Your task to perform on an android device: Open Youtube and go to "Your channel" Image 0: 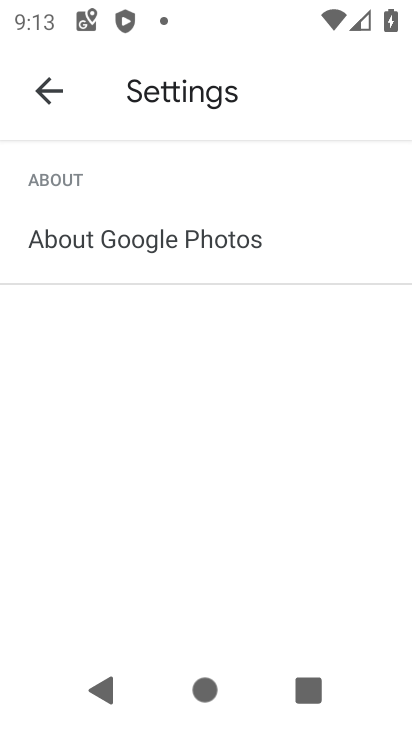
Step 0: press home button
Your task to perform on an android device: Open Youtube and go to "Your channel" Image 1: 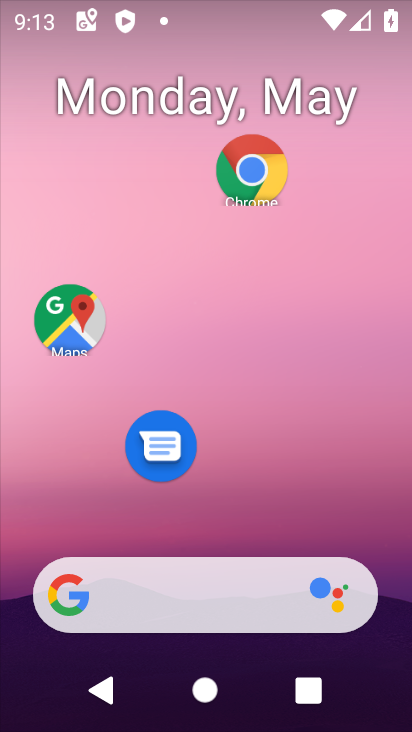
Step 1: drag from (221, 530) to (210, 51)
Your task to perform on an android device: Open Youtube and go to "Your channel" Image 2: 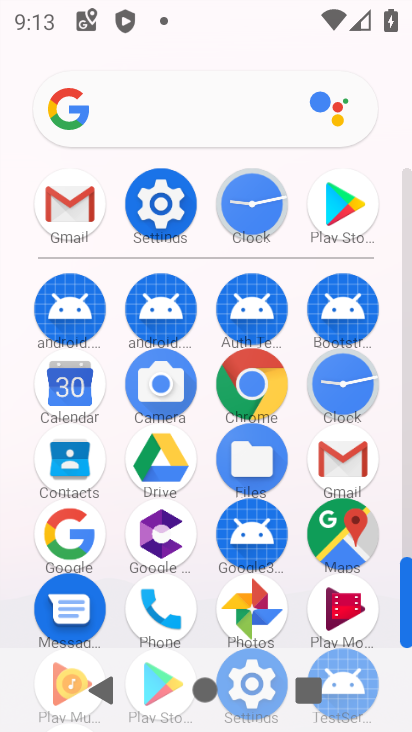
Step 2: drag from (197, 577) to (206, 96)
Your task to perform on an android device: Open Youtube and go to "Your channel" Image 3: 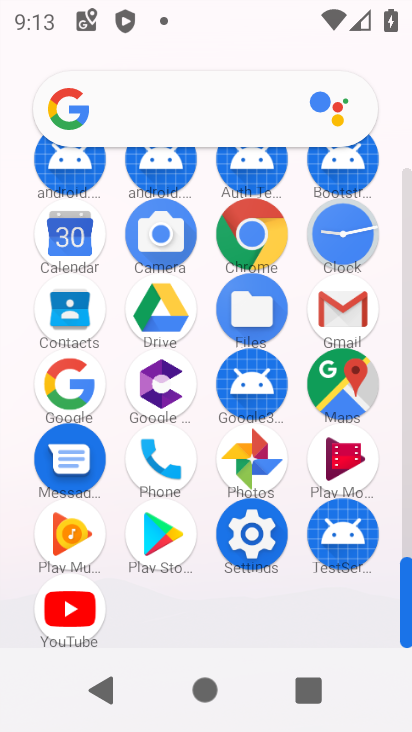
Step 3: click (67, 603)
Your task to perform on an android device: Open Youtube and go to "Your channel" Image 4: 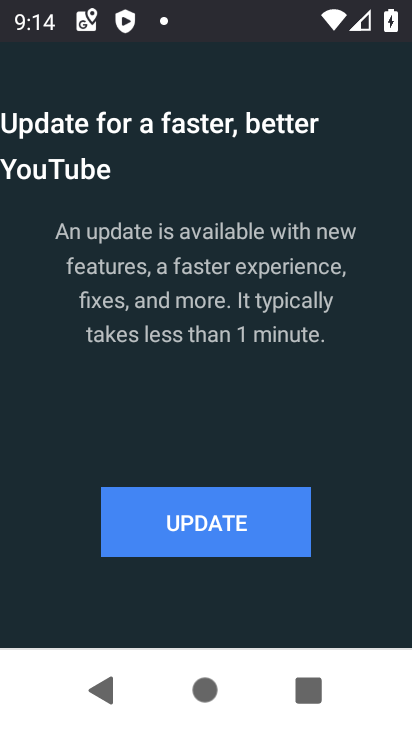
Step 4: click (209, 522)
Your task to perform on an android device: Open Youtube and go to "Your channel" Image 5: 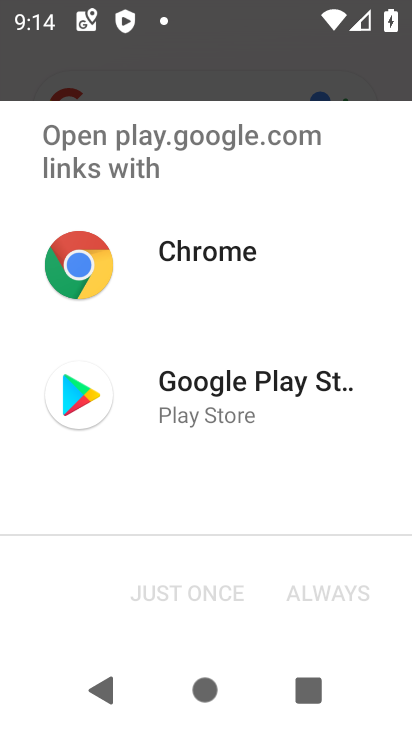
Step 5: click (131, 395)
Your task to perform on an android device: Open Youtube and go to "Your channel" Image 6: 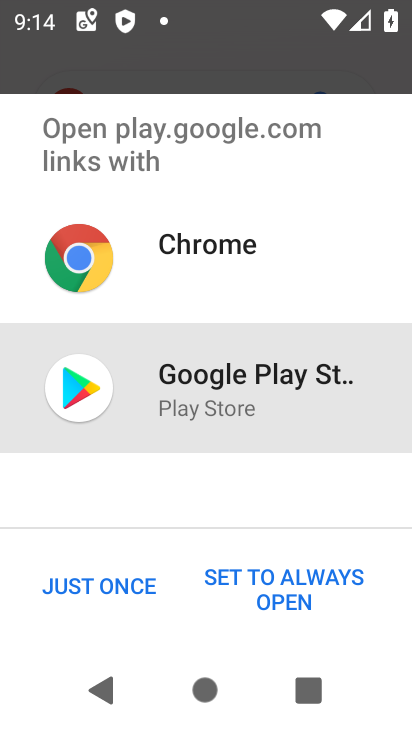
Step 6: click (116, 586)
Your task to perform on an android device: Open Youtube and go to "Your channel" Image 7: 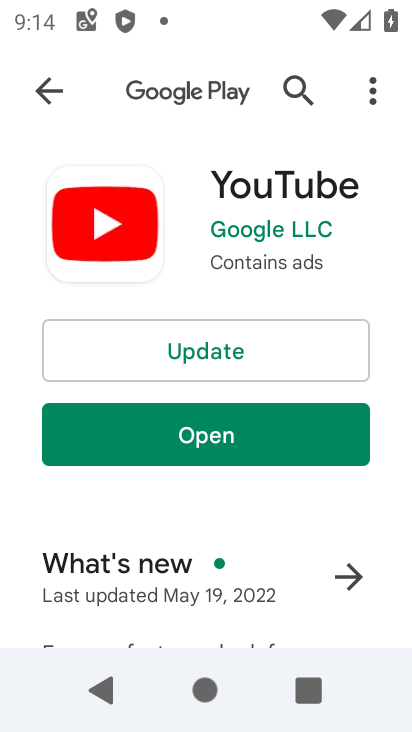
Step 7: click (173, 355)
Your task to perform on an android device: Open Youtube and go to "Your channel" Image 8: 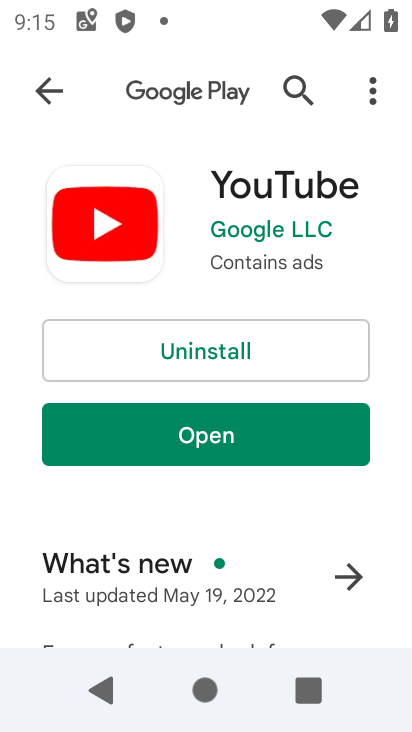
Step 8: click (211, 437)
Your task to perform on an android device: Open Youtube and go to "Your channel" Image 9: 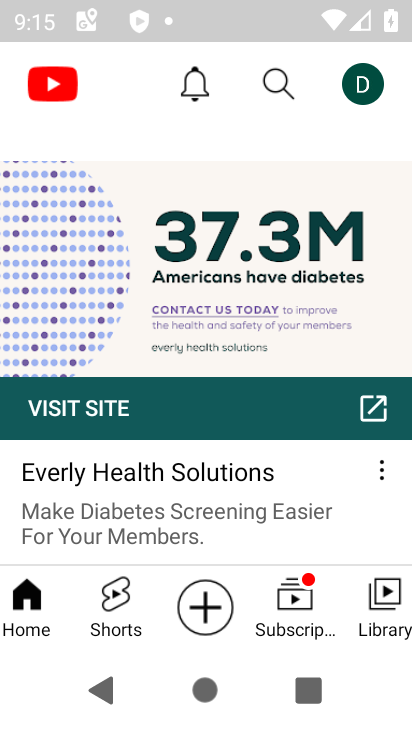
Step 9: click (359, 76)
Your task to perform on an android device: Open Youtube and go to "Your channel" Image 10: 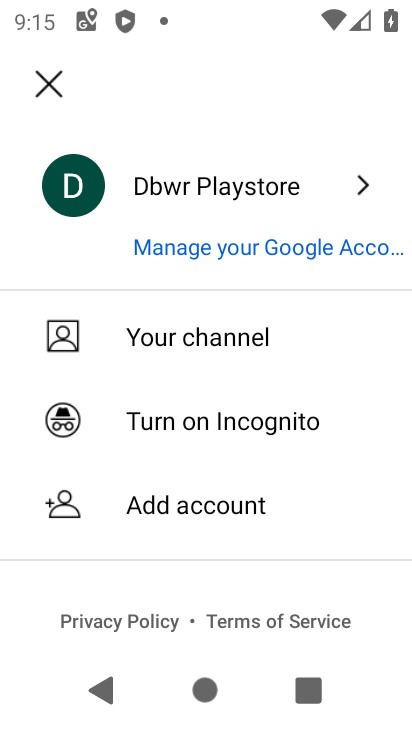
Step 10: click (247, 341)
Your task to perform on an android device: Open Youtube and go to "Your channel" Image 11: 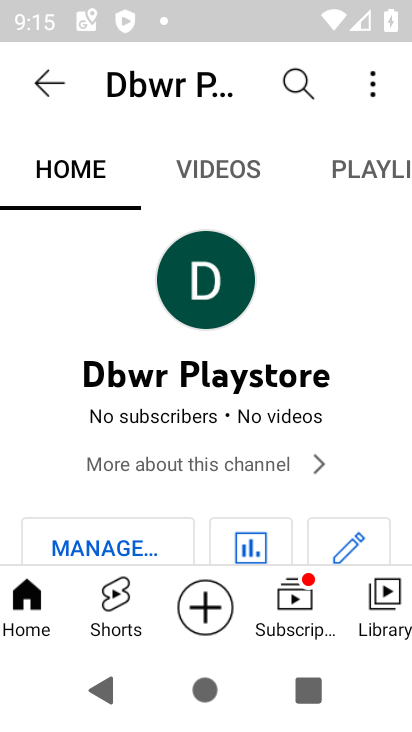
Step 11: task complete